Your task to perform on an android device: Go to privacy settings Image 0: 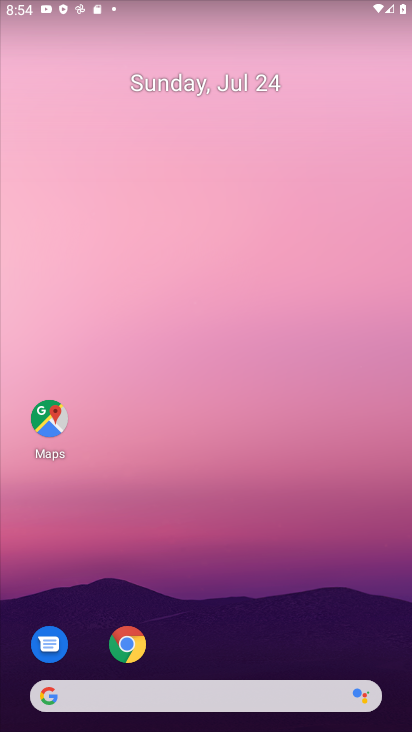
Step 0: drag from (239, 640) to (232, 233)
Your task to perform on an android device: Go to privacy settings Image 1: 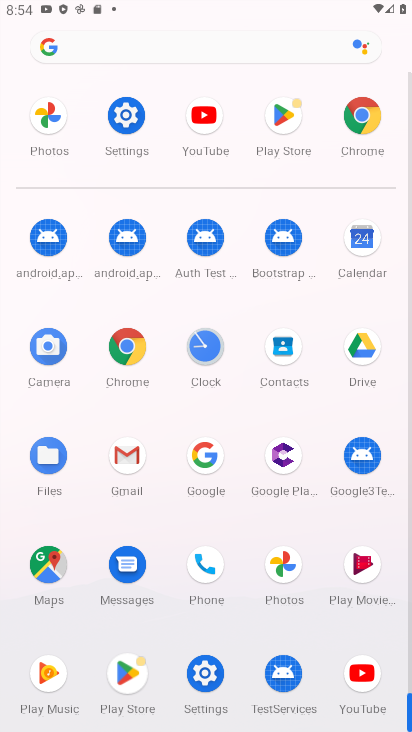
Step 1: click (201, 675)
Your task to perform on an android device: Go to privacy settings Image 2: 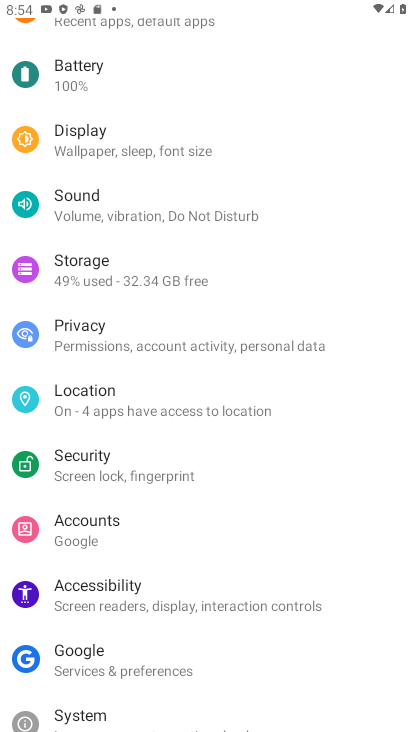
Step 2: click (81, 336)
Your task to perform on an android device: Go to privacy settings Image 3: 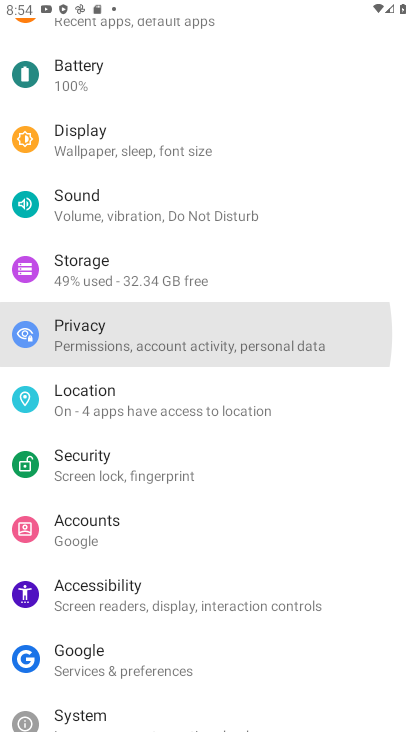
Step 3: click (81, 336)
Your task to perform on an android device: Go to privacy settings Image 4: 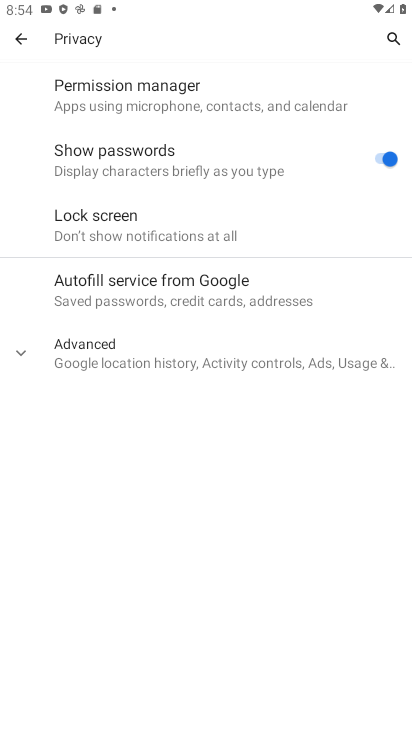
Step 4: task complete